Your task to perform on an android device: Search for a tv stand on Ikea Image 0: 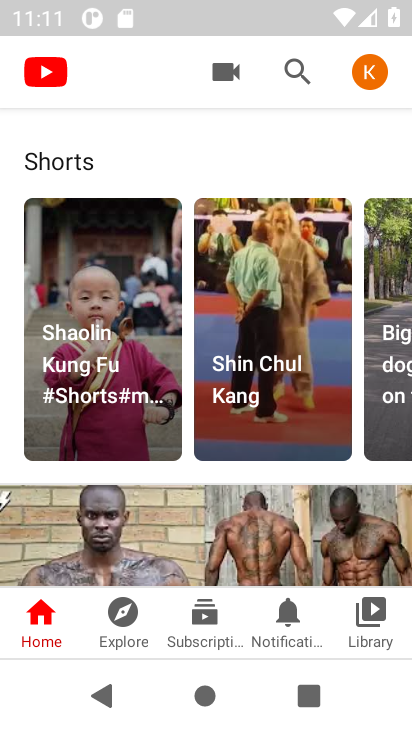
Step 0: click (278, 349)
Your task to perform on an android device: Search for a tv stand on Ikea Image 1: 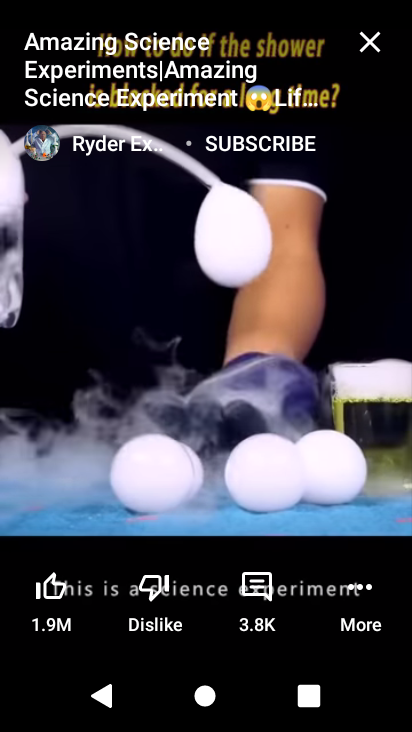
Step 1: task complete